Your task to perform on an android device: Search for seafood restaurants on Google Maps Image 0: 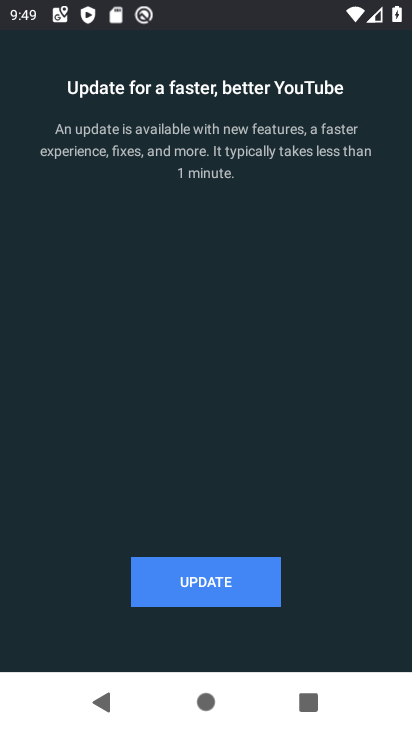
Step 0: drag from (306, 541) to (281, 245)
Your task to perform on an android device: Search for seafood restaurants on Google Maps Image 1: 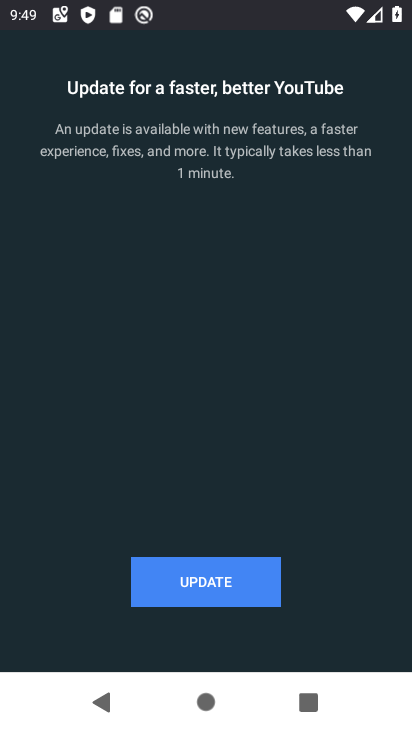
Step 1: press home button
Your task to perform on an android device: Search for seafood restaurants on Google Maps Image 2: 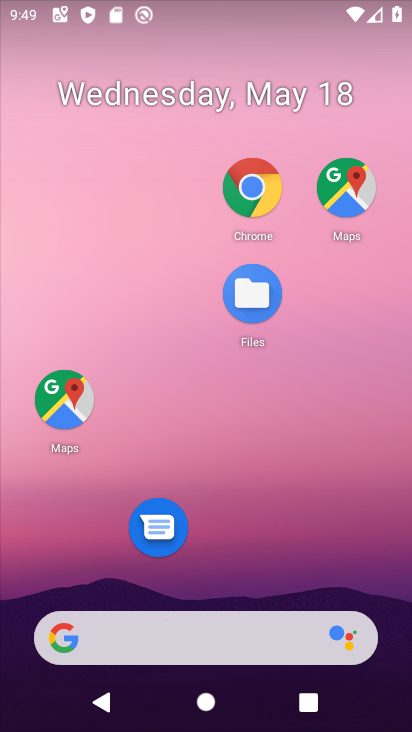
Step 2: drag from (344, 528) to (312, 120)
Your task to perform on an android device: Search for seafood restaurants on Google Maps Image 3: 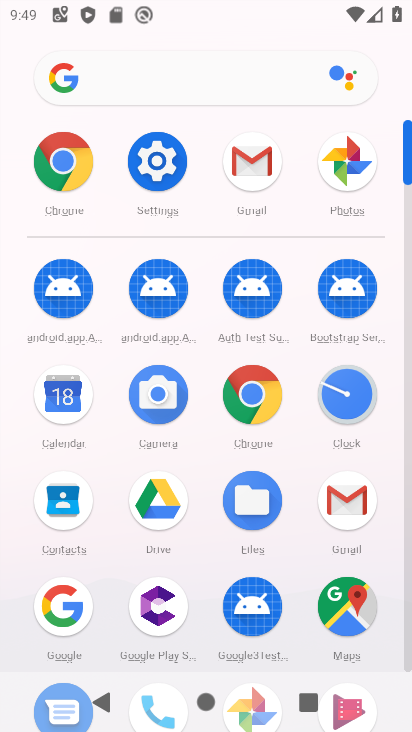
Step 3: click (351, 598)
Your task to perform on an android device: Search for seafood restaurants on Google Maps Image 4: 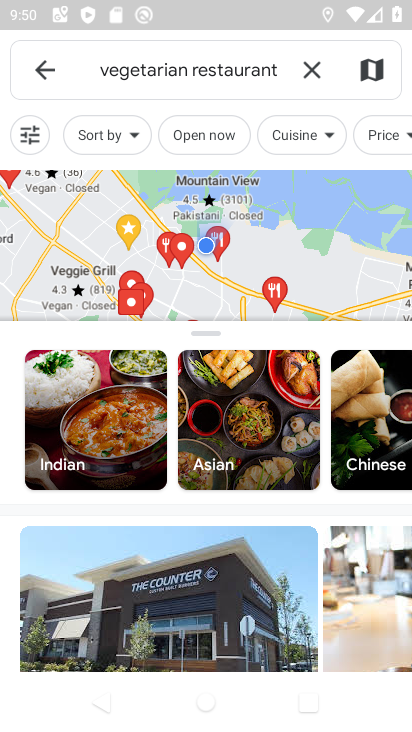
Step 4: click (295, 58)
Your task to perform on an android device: Search for seafood restaurants on Google Maps Image 5: 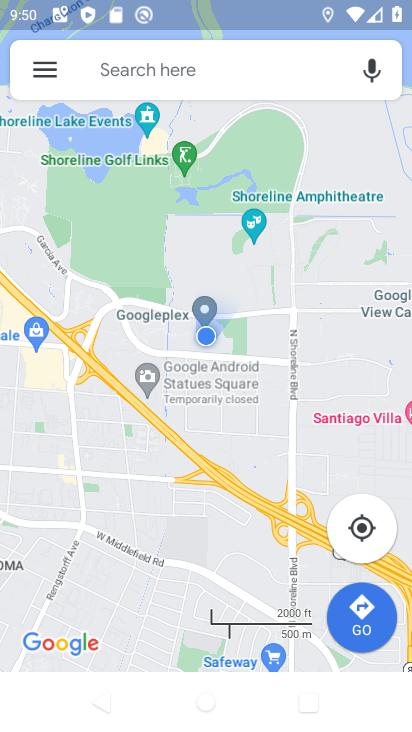
Step 5: click (268, 67)
Your task to perform on an android device: Search for seafood restaurants on Google Maps Image 6: 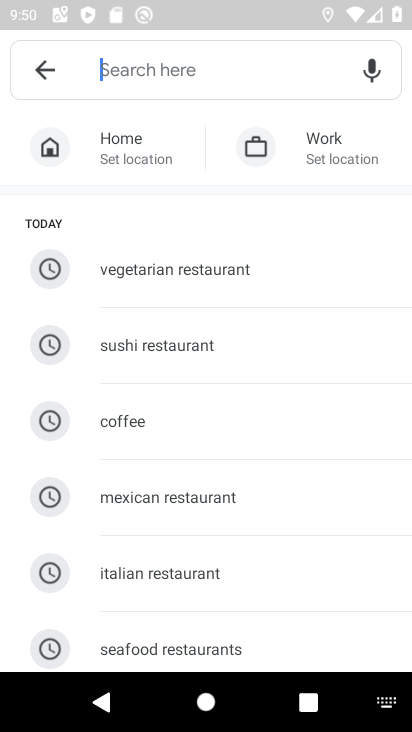
Step 6: drag from (298, 519) to (297, 224)
Your task to perform on an android device: Search for seafood restaurants on Google Maps Image 7: 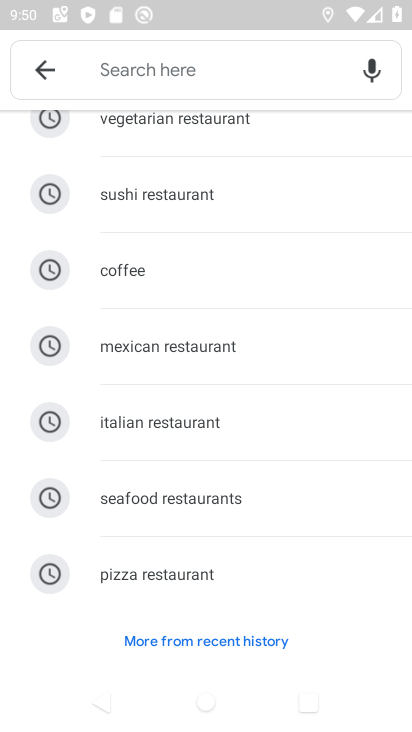
Step 7: click (117, 501)
Your task to perform on an android device: Search for seafood restaurants on Google Maps Image 8: 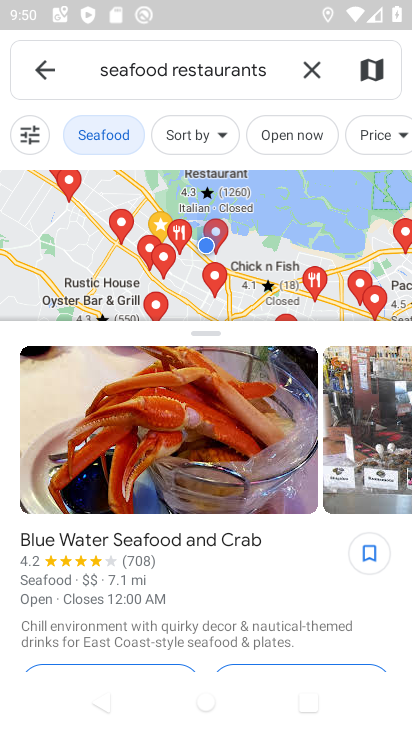
Step 8: task complete